Your task to perform on an android device: open sync settings in chrome Image 0: 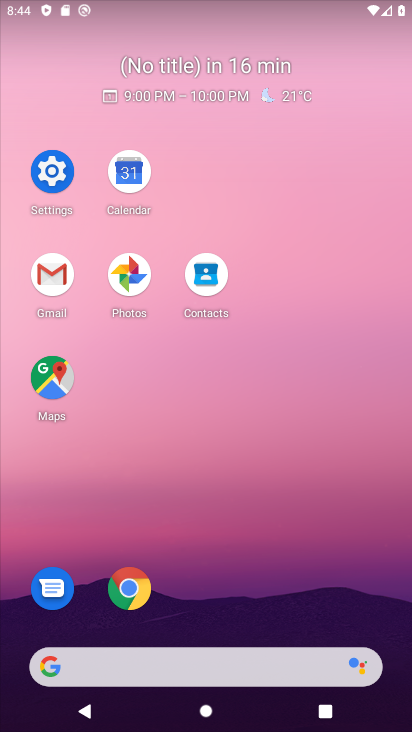
Step 0: click (134, 592)
Your task to perform on an android device: open sync settings in chrome Image 1: 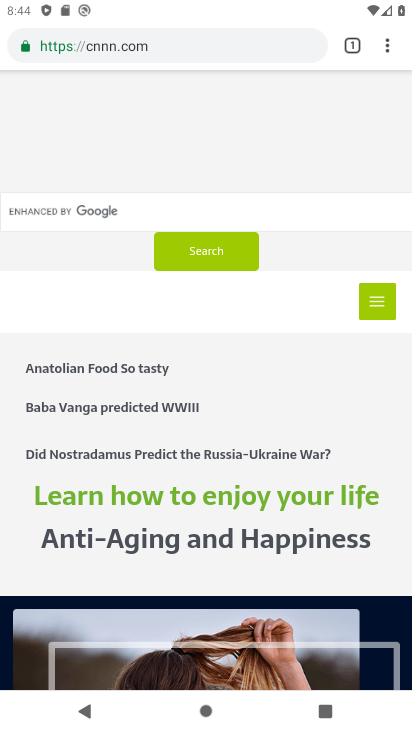
Step 1: click (387, 53)
Your task to perform on an android device: open sync settings in chrome Image 2: 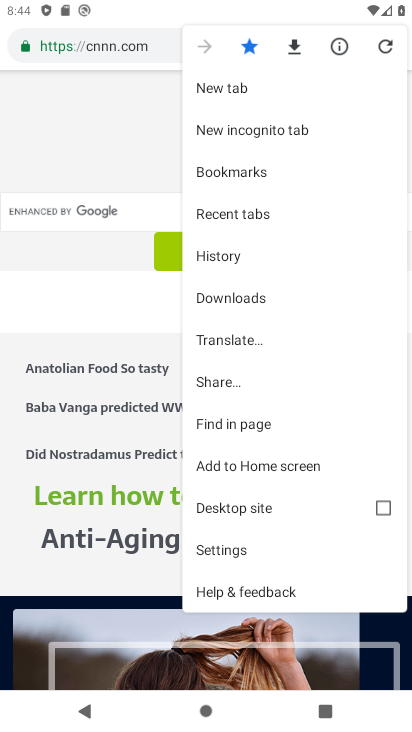
Step 2: click (275, 546)
Your task to perform on an android device: open sync settings in chrome Image 3: 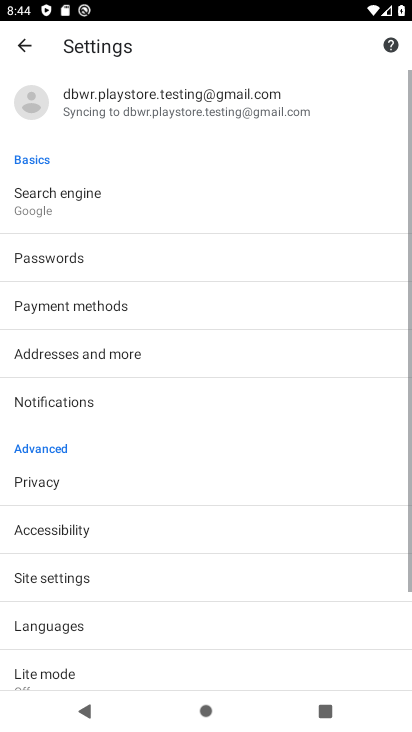
Step 3: drag from (275, 545) to (313, 179)
Your task to perform on an android device: open sync settings in chrome Image 4: 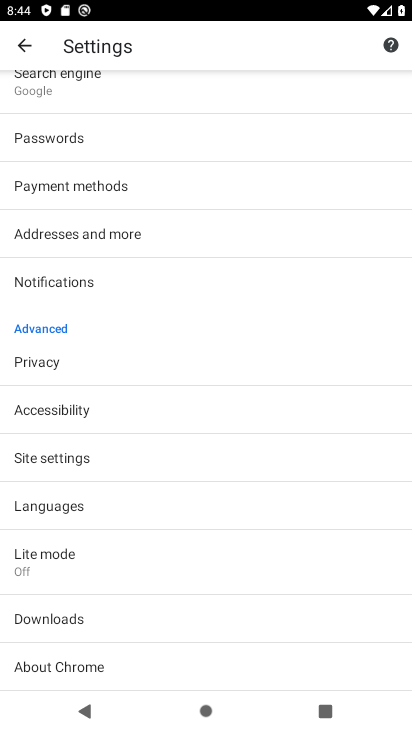
Step 4: click (122, 458)
Your task to perform on an android device: open sync settings in chrome Image 5: 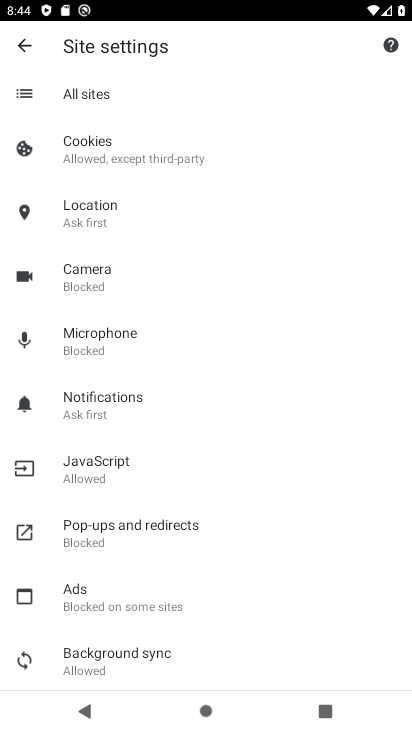
Step 5: click (139, 643)
Your task to perform on an android device: open sync settings in chrome Image 6: 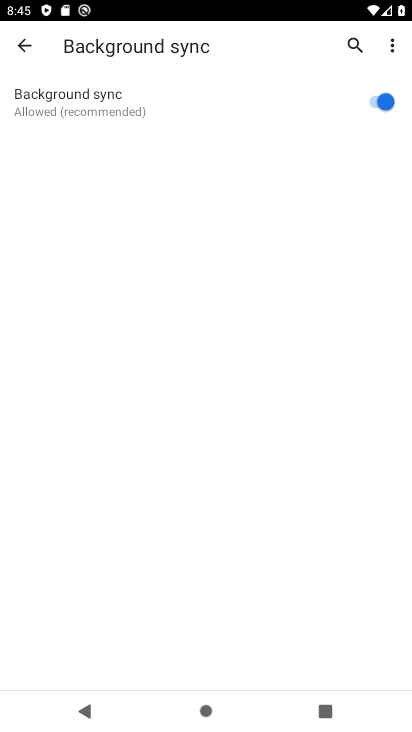
Step 6: task complete